Your task to perform on an android device: turn off sleep mode Image 0: 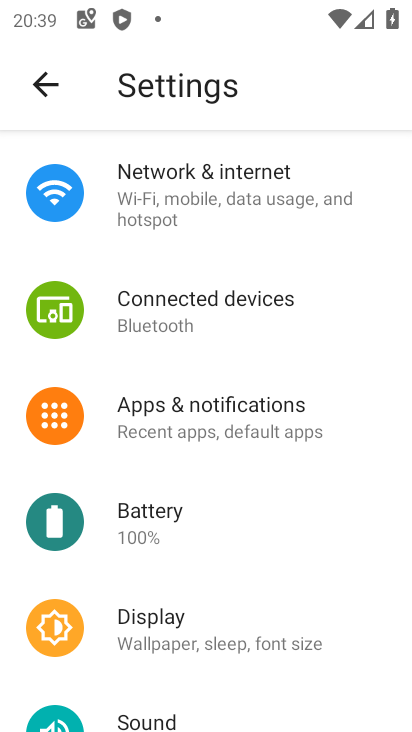
Step 0: task impossible